Your task to perform on an android device: allow notifications from all sites in the chrome app Image 0: 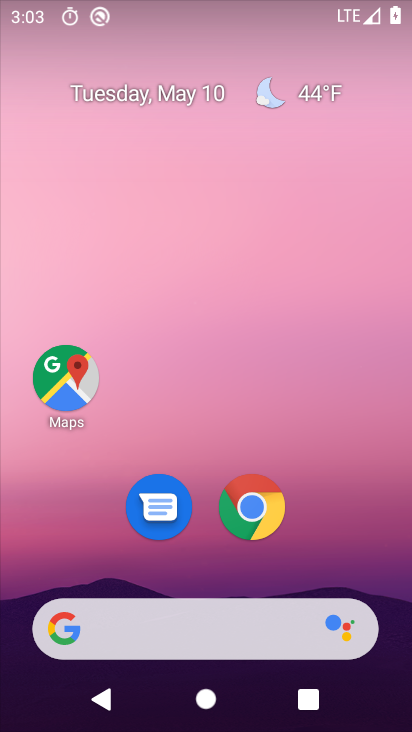
Step 0: click (269, 517)
Your task to perform on an android device: allow notifications from all sites in the chrome app Image 1: 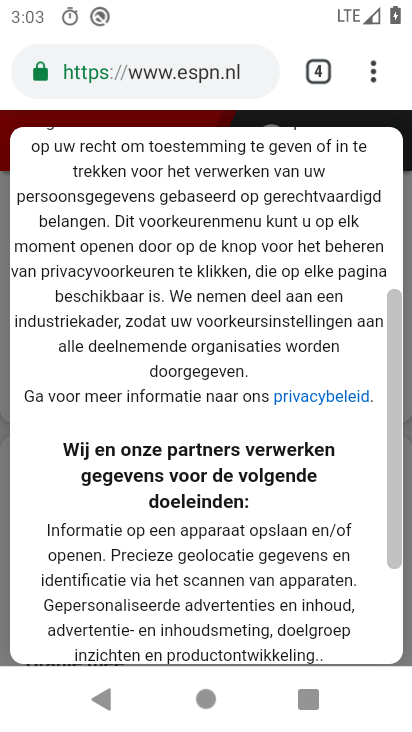
Step 1: click (368, 77)
Your task to perform on an android device: allow notifications from all sites in the chrome app Image 2: 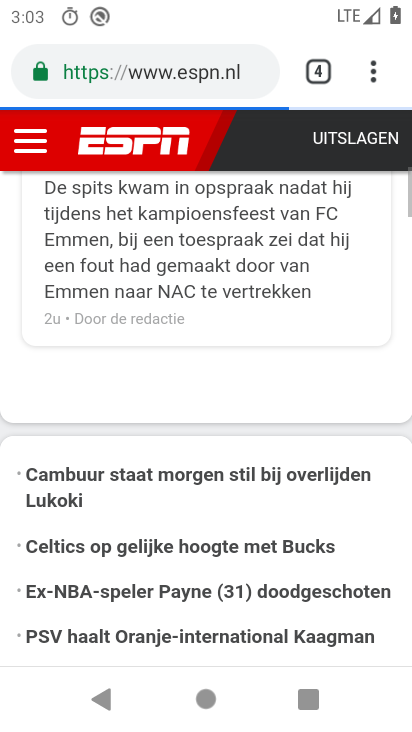
Step 2: click (375, 68)
Your task to perform on an android device: allow notifications from all sites in the chrome app Image 3: 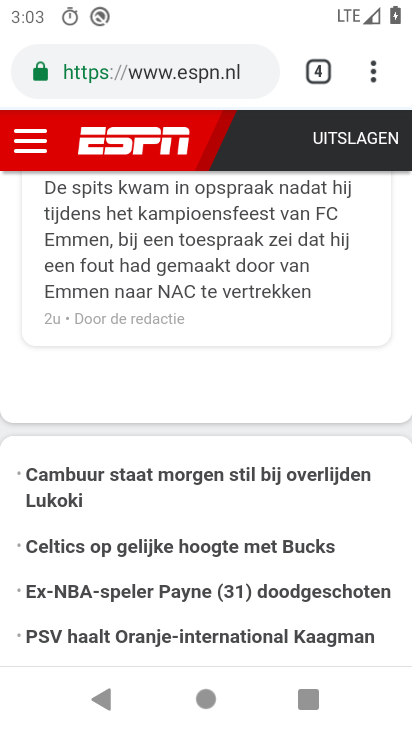
Step 3: click (375, 68)
Your task to perform on an android device: allow notifications from all sites in the chrome app Image 4: 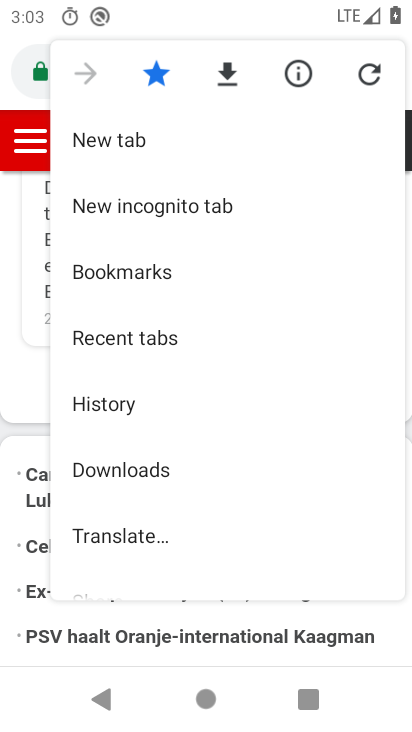
Step 4: drag from (113, 569) to (153, 258)
Your task to perform on an android device: allow notifications from all sites in the chrome app Image 5: 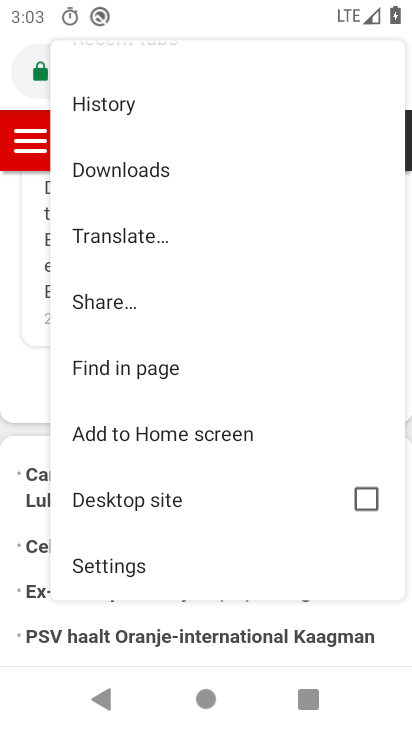
Step 5: click (118, 564)
Your task to perform on an android device: allow notifications from all sites in the chrome app Image 6: 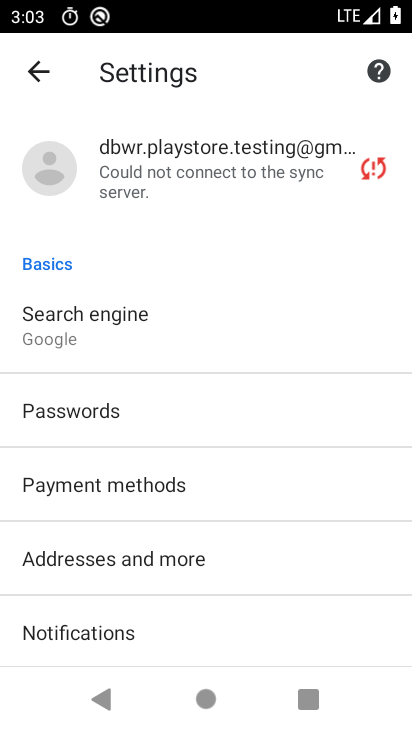
Step 6: drag from (105, 615) to (95, 357)
Your task to perform on an android device: allow notifications from all sites in the chrome app Image 7: 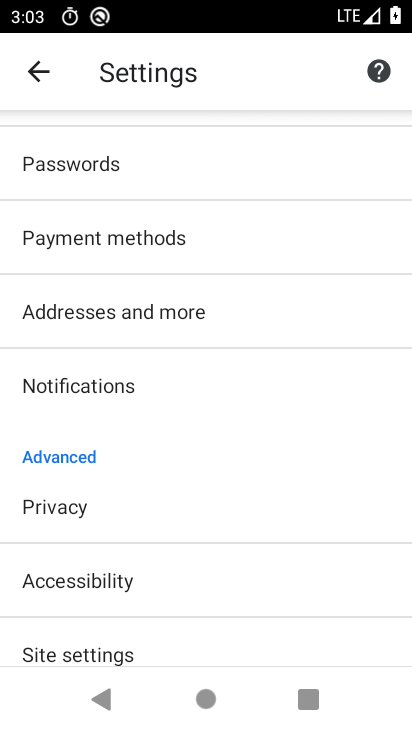
Step 7: click (58, 642)
Your task to perform on an android device: allow notifications from all sites in the chrome app Image 8: 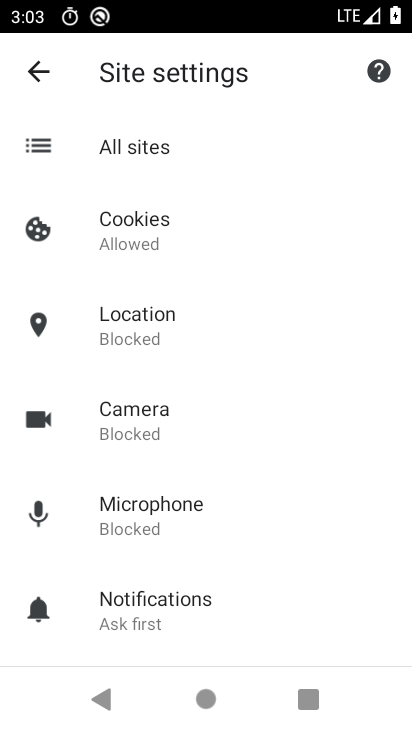
Step 8: click (157, 226)
Your task to perform on an android device: allow notifications from all sites in the chrome app Image 9: 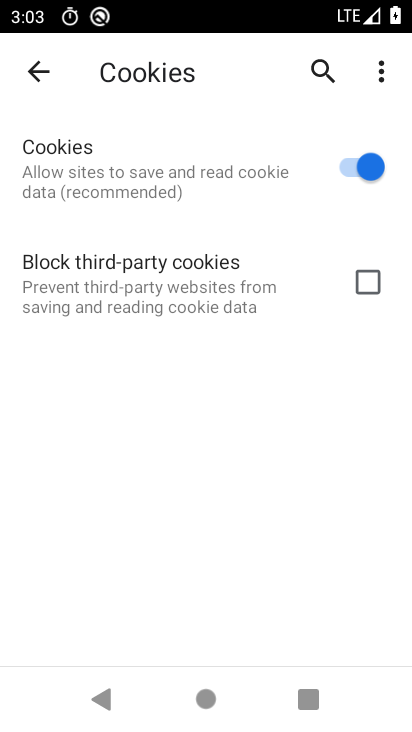
Step 9: task complete